Your task to perform on an android device: open app "Upside-Cash back on gas & food" (install if not already installed) Image 0: 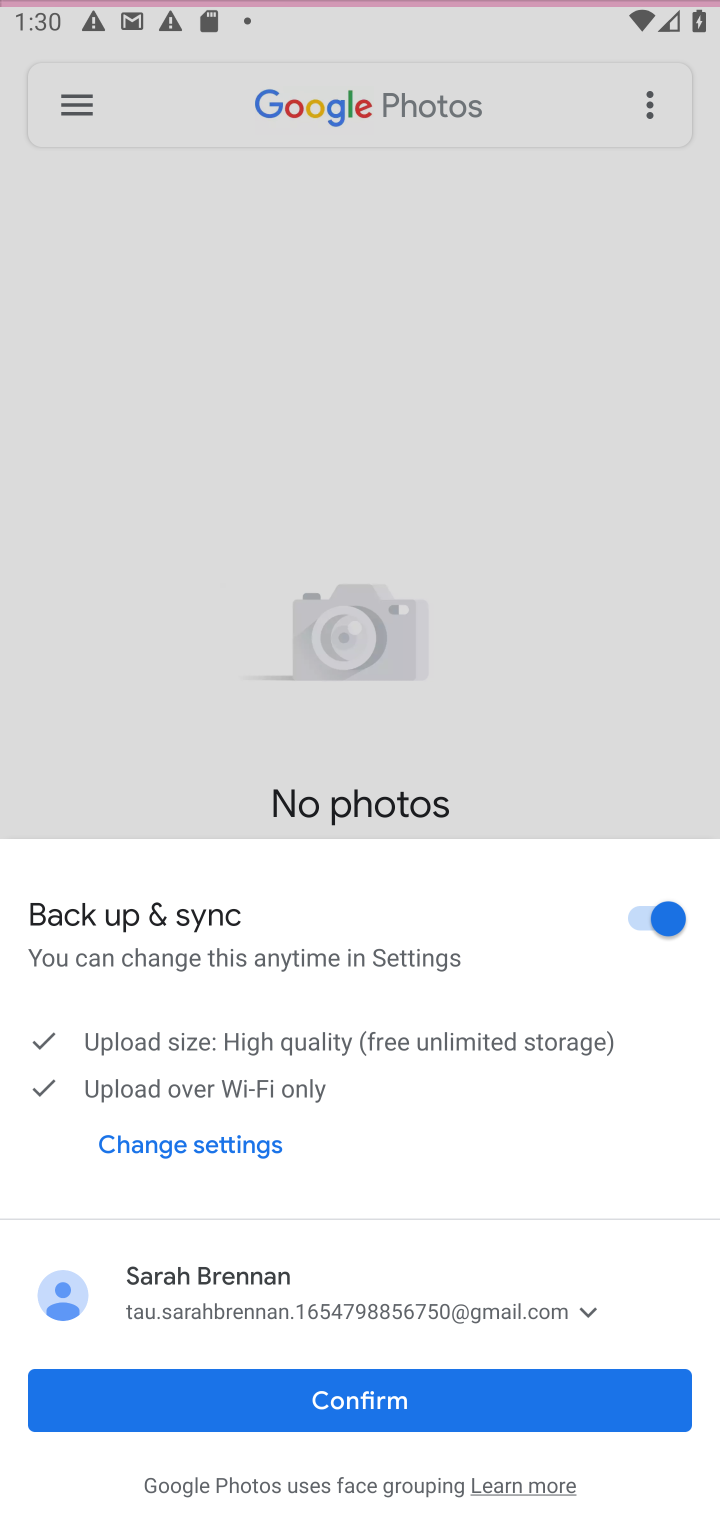
Step 0: press home button
Your task to perform on an android device: open app "Upside-Cash back on gas & food" (install if not already installed) Image 1: 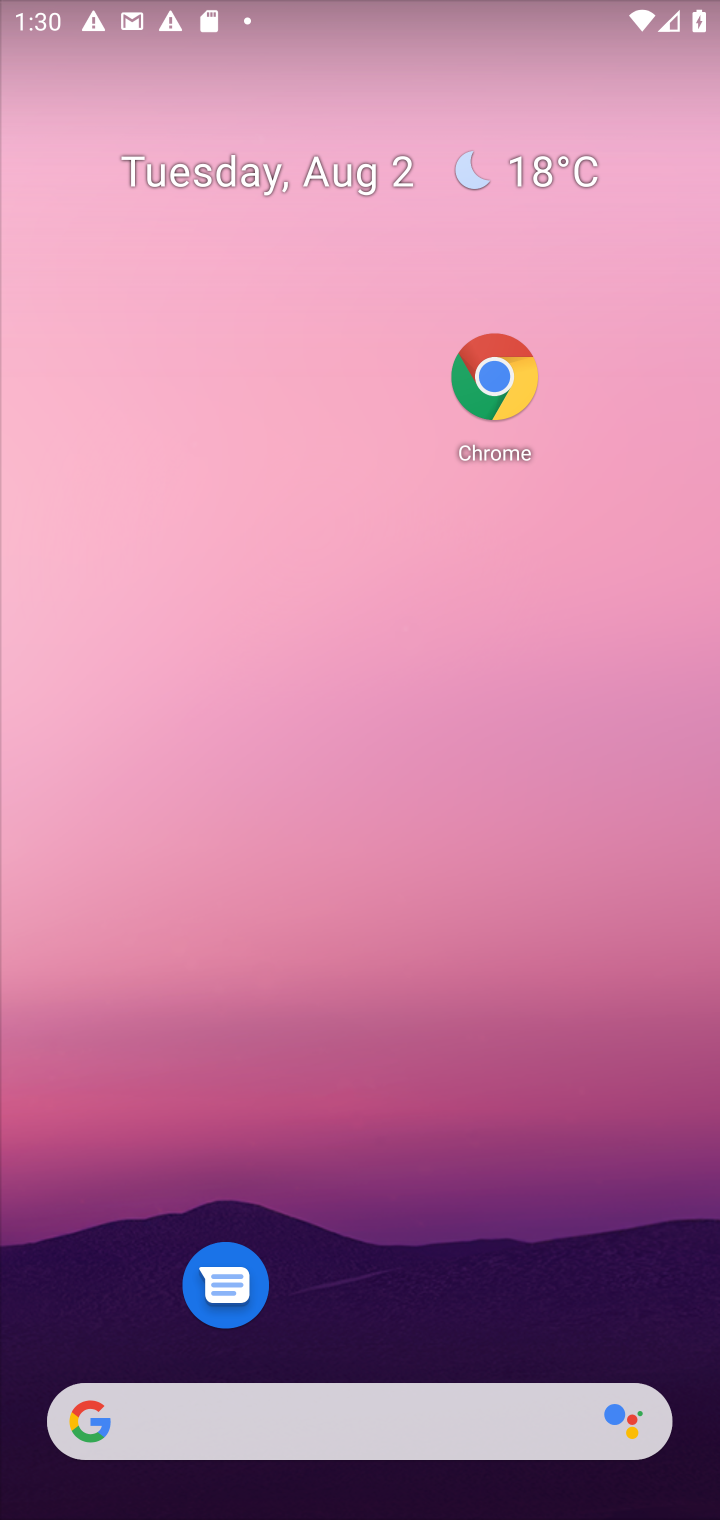
Step 1: drag from (481, 1233) to (431, 303)
Your task to perform on an android device: open app "Upside-Cash back on gas & food" (install if not already installed) Image 2: 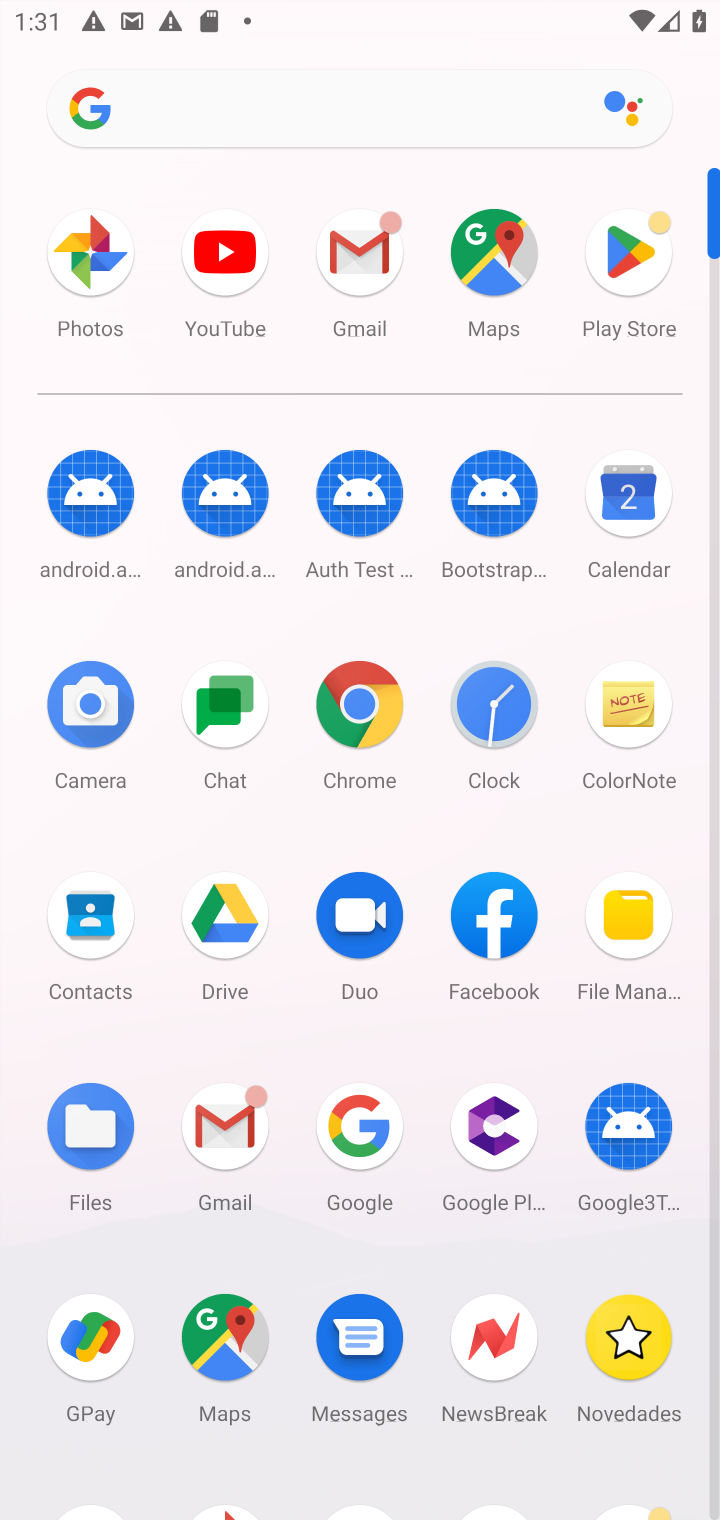
Step 2: click (613, 257)
Your task to perform on an android device: open app "Upside-Cash back on gas & food" (install if not already installed) Image 3: 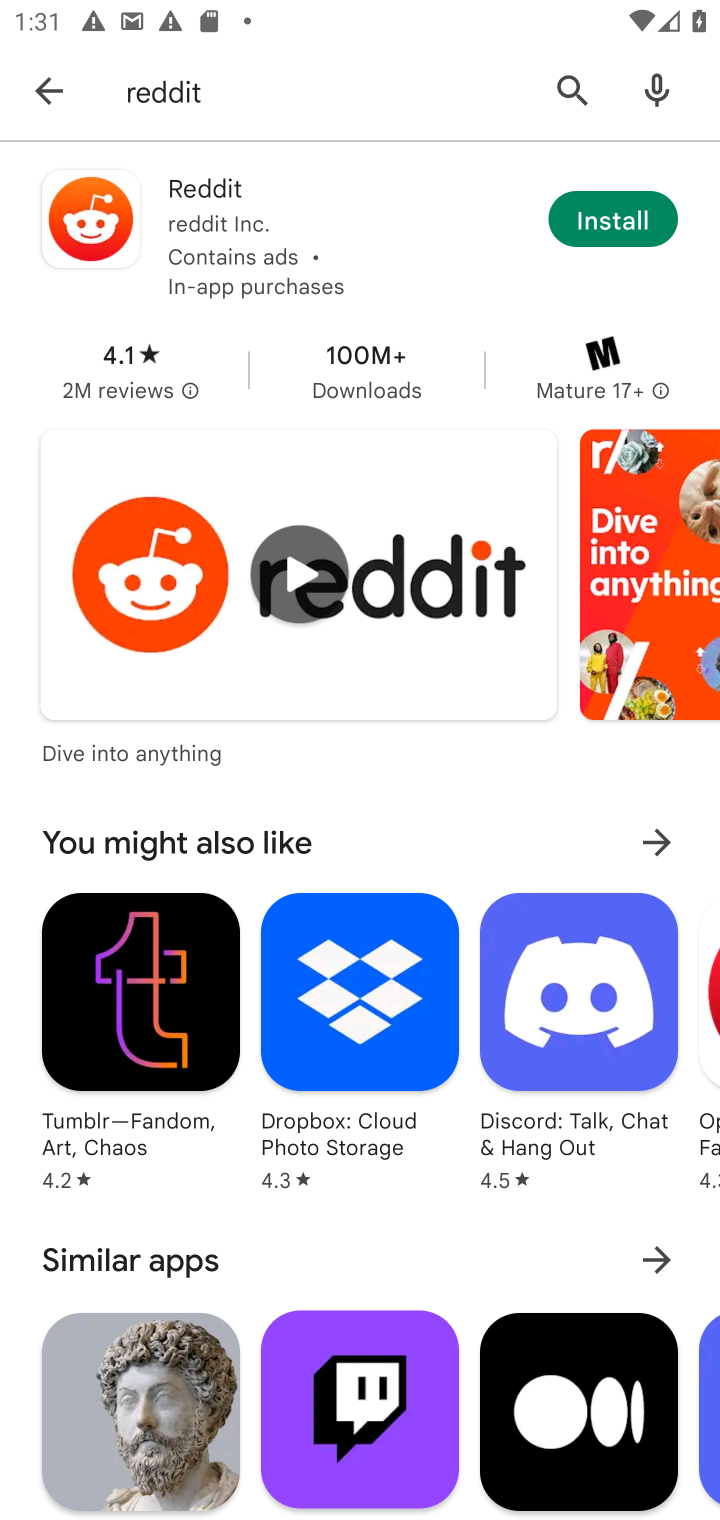
Step 3: click (560, 88)
Your task to perform on an android device: open app "Upside-Cash back on gas & food" (install if not already installed) Image 4: 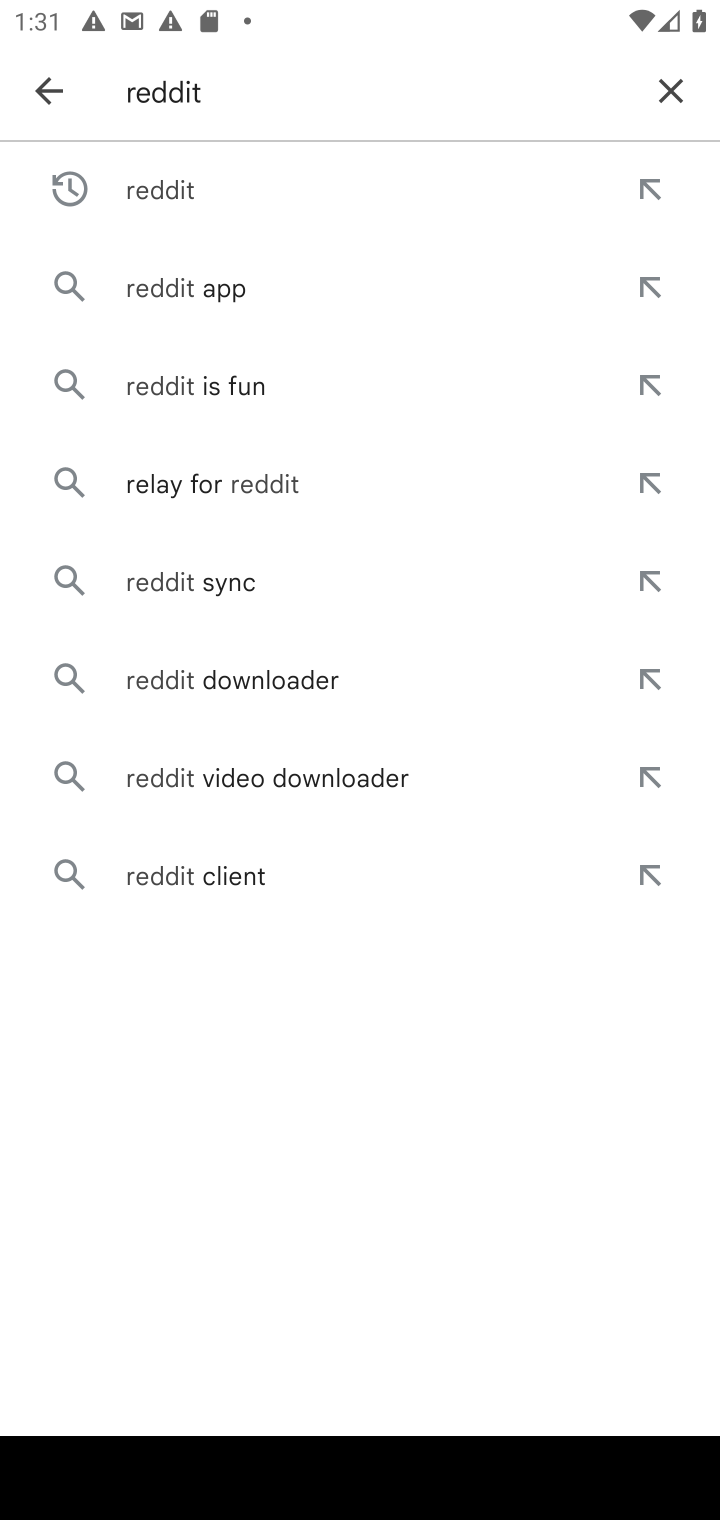
Step 4: click (689, 79)
Your task to perform on an android device: open app "Upside-Cash back on gas & food" (install if not already installed) Image 5: 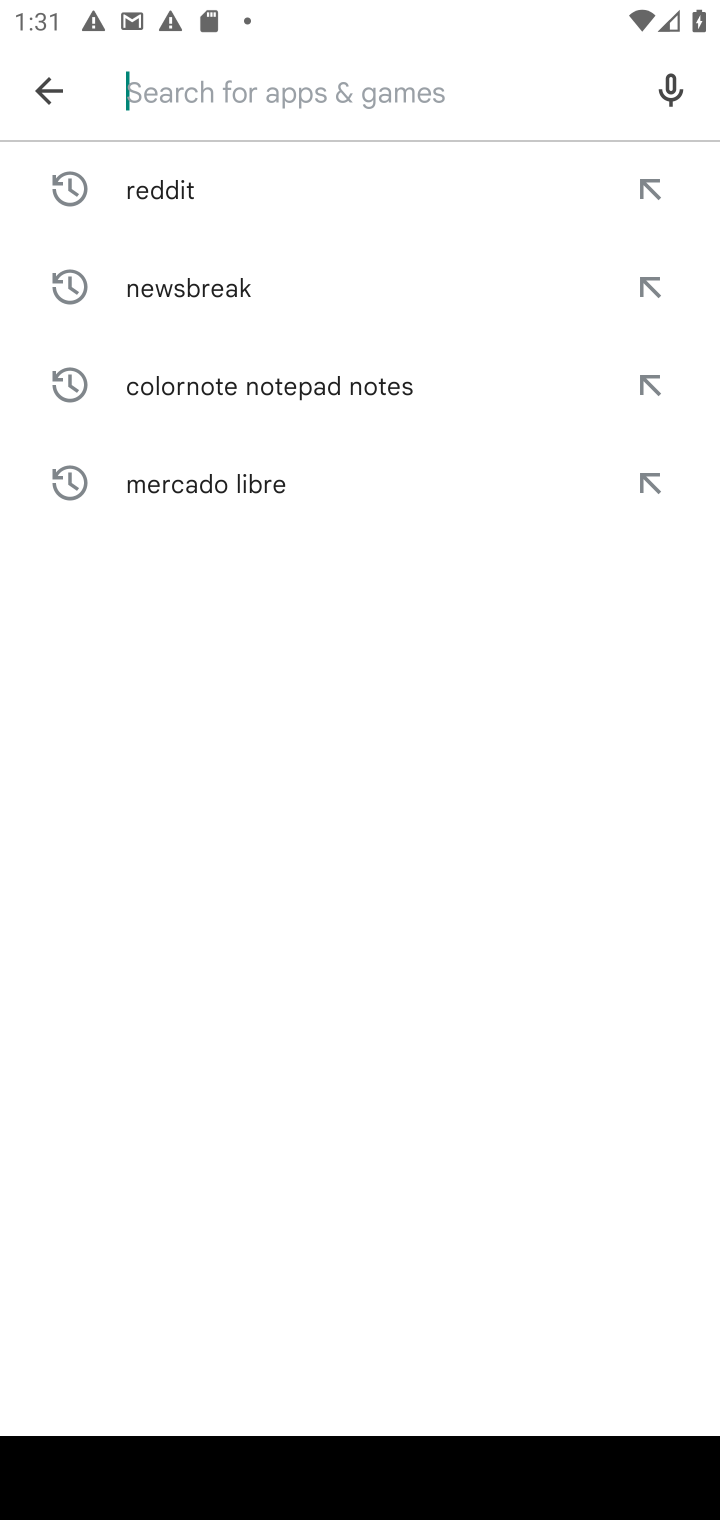
Step 5: type "Upside-Cash back on gas & food"
Your task to perform on an android device: open app "Upside-Cash back on gas & food" (install if not already installed) Image 6: 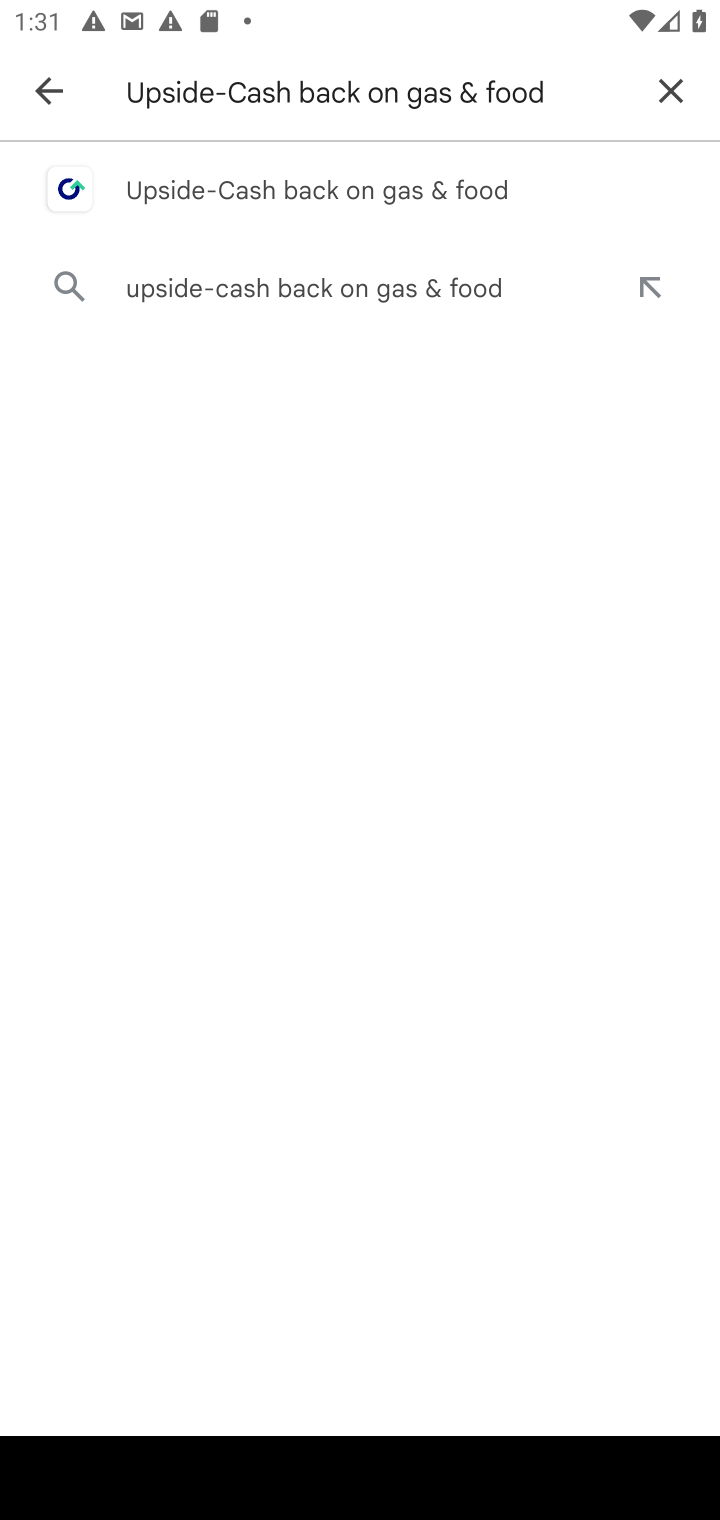
Step 6: click (376, 210)
Your task to perform on an android device: open app "Upside-Cash back on gas & food" (install if not already installed) Image 7: 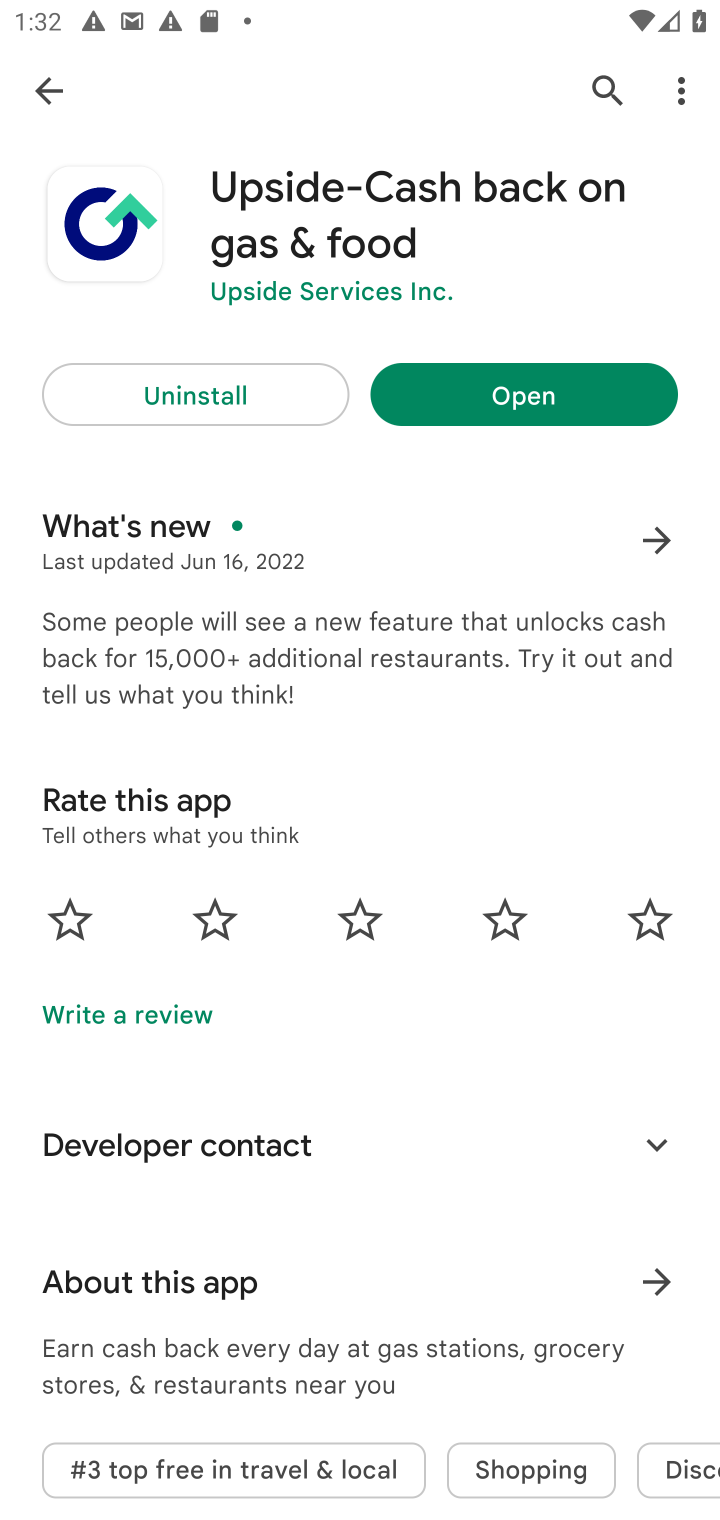
Step 7: click (523, 390)
Your task to perform on an android device: open app "Upside-Cash back on gas & food" (install if not already installed) Image 8: 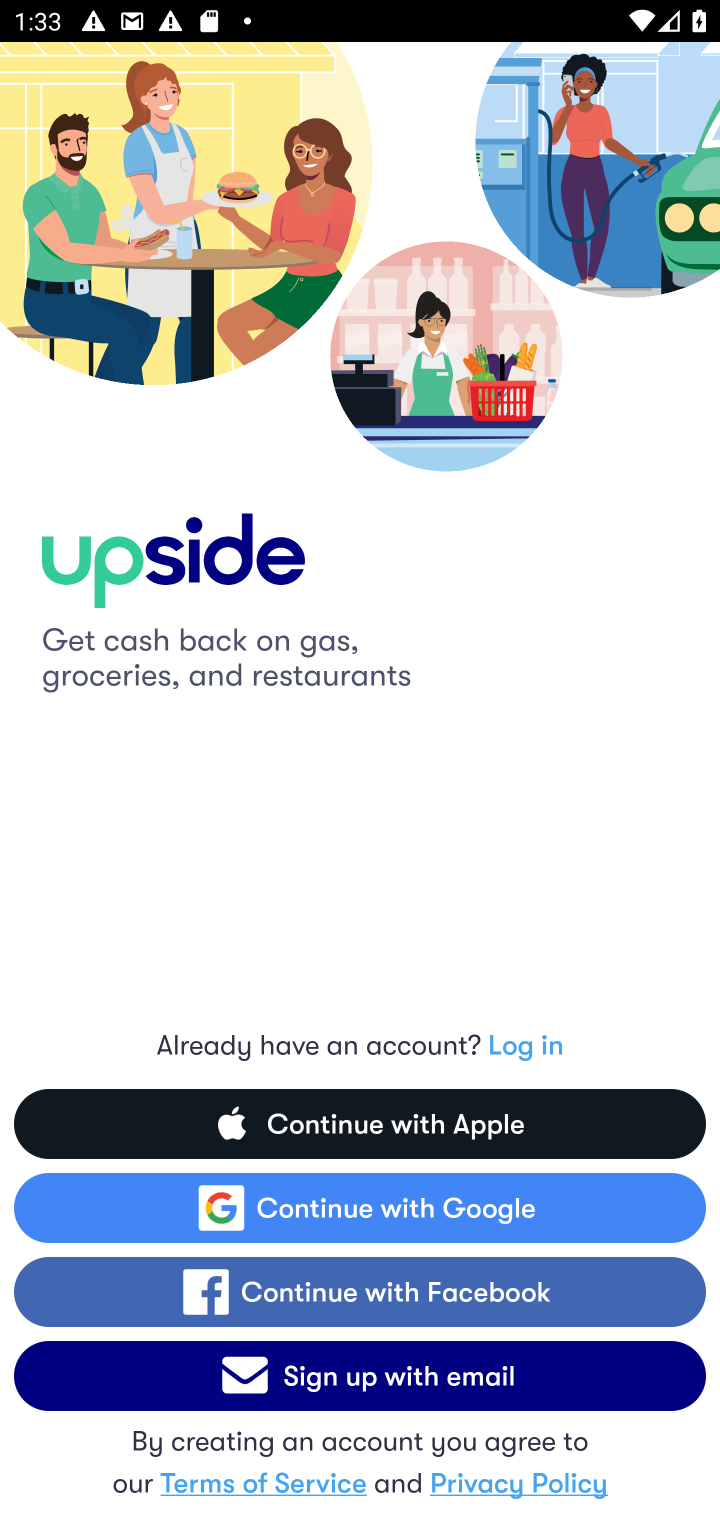
Step 8: task complete